Your task to perform on an android device: turn off priority inbox in the gmail app Image 0: 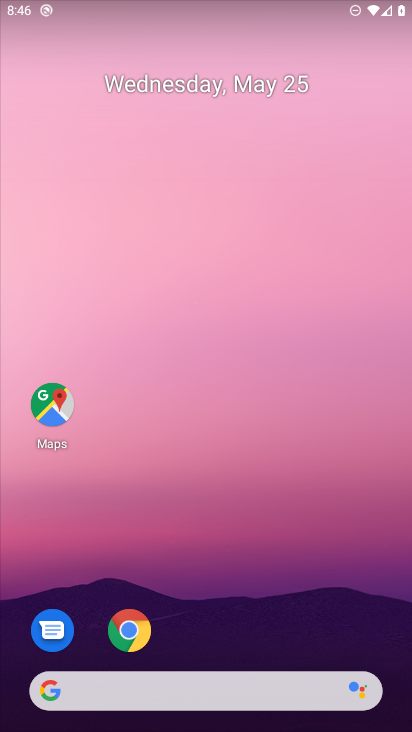
Step 0: drag from (218, 613) to (271, 415)
Your task to perform on an android device: turn off priority inbox in the gmail app Image 1: 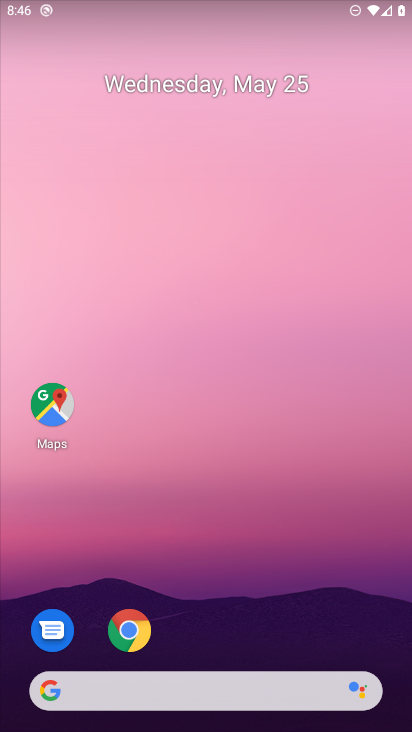
Step 1: drag from (159, 683) to (317, 232)
Your task to perform on an android device: turn off priority inbox in the gmail app Image 2: 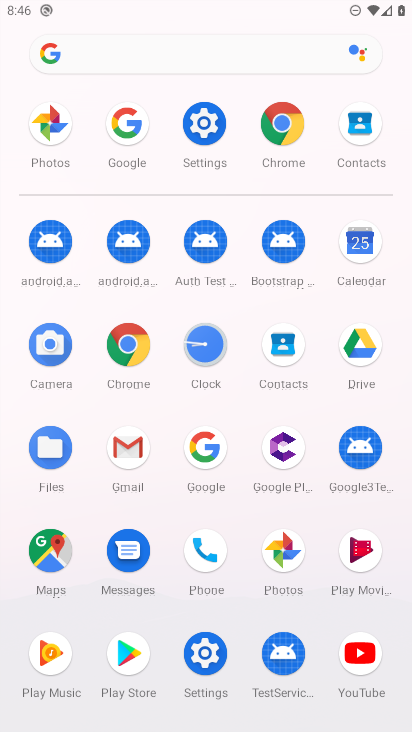
Step 2: click (205, 654)
Your task to perform on an android device: turn off priority inbox in the gmail app Image 3: 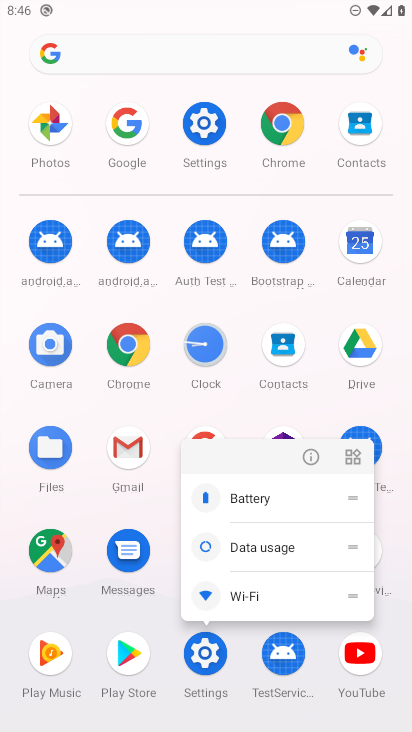
Step 3: click (128, 441)
Your task to perform on an android device: turn off priority inbox in the gmail app Image 4: 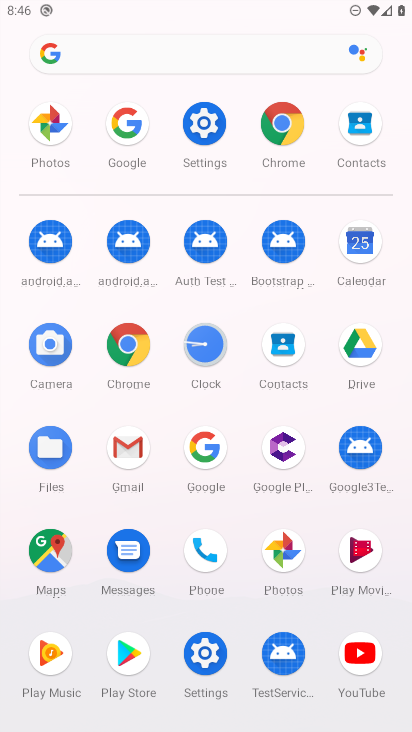
Step 4: click (130, 449)
Your task to perform on an android device: turn off priority inbox in the gmail app Image 5: 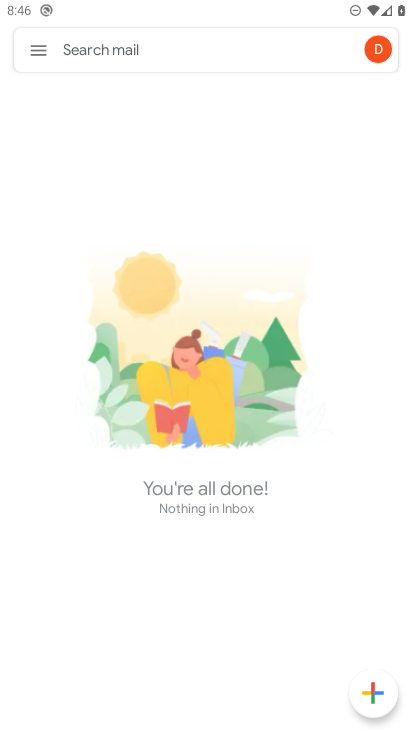
Step 5: click (26, 45)
Your task to perform on an android device: turn off priority inbox in the gmail app Image 6: 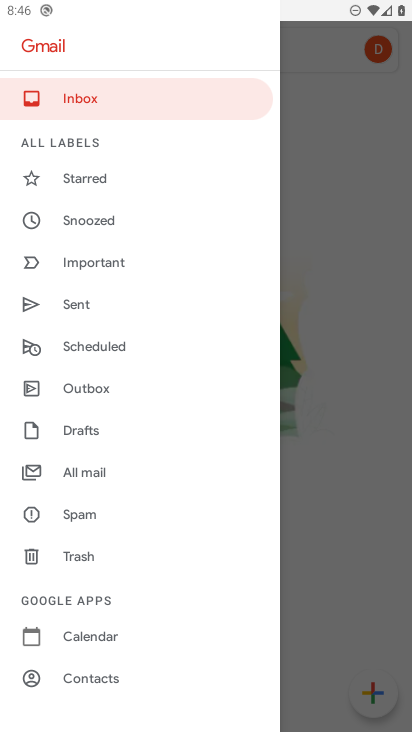
Step 6: drag from (122, 666) to (203, 364)
Your task to perform on an android device: turn off priority inbox in the gmail app Image 7: 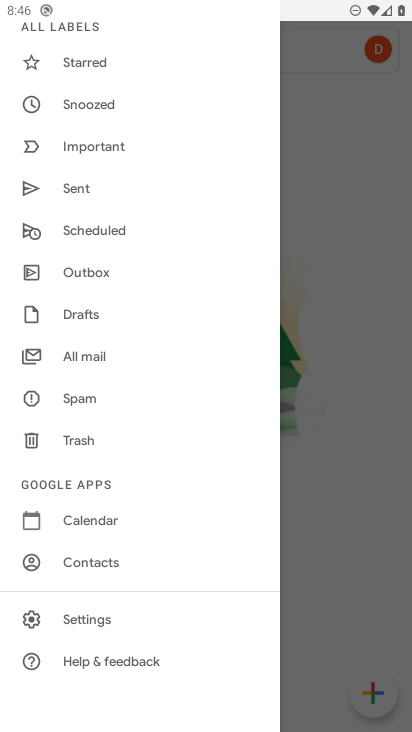
Step 7: click (77, 628)
Your task to perform on an android device: turn off priority inbox in the gmail app Image 8: 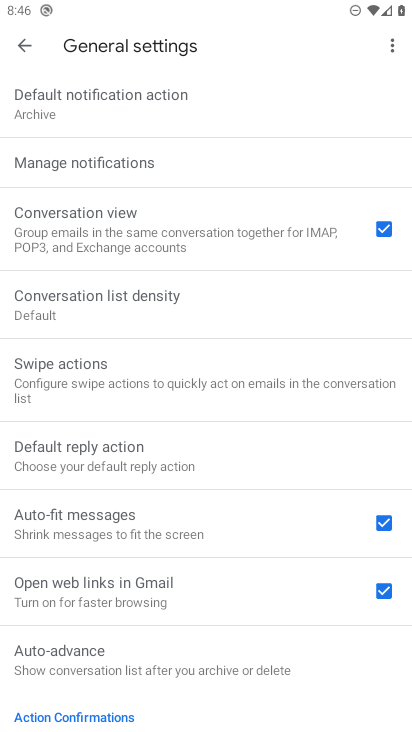
Step 8: click (22, 46)
Your task to perform on an android device: turn off priority inbox in the gmail app Image 9: 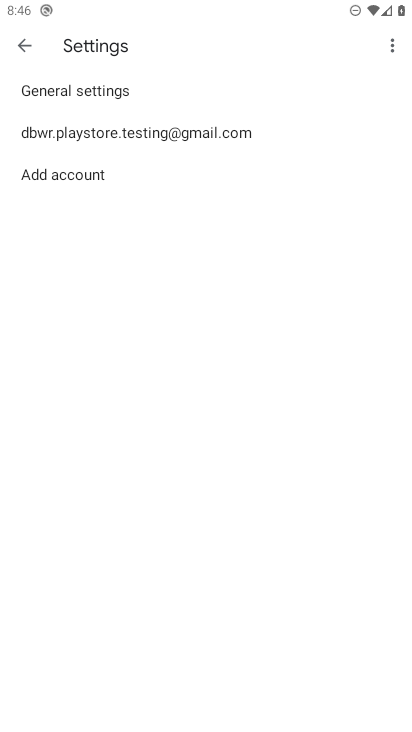
Step 9: click (144, 138)
Your task to perform on an android device: turn off priority inbox in the gmail app Image 10: 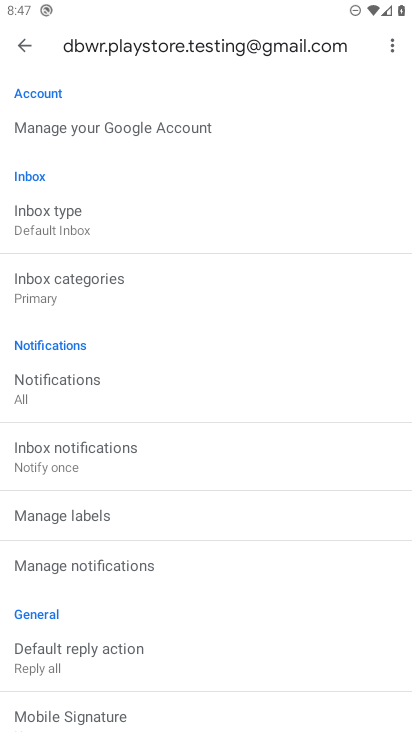
Step 10: click (53, 217)
Your task to perform on an android device: turn off priority inbox in the gmail app Image 11: 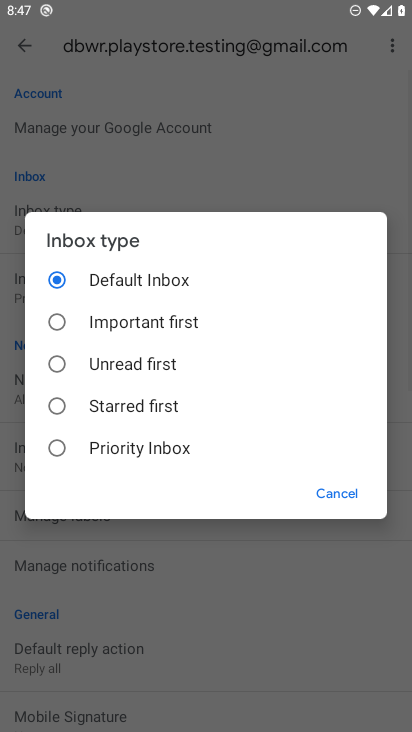
Step 11: click (104, 455)
Your task to perform on an android device: turn off priority inbox in the gmail app Image 12: 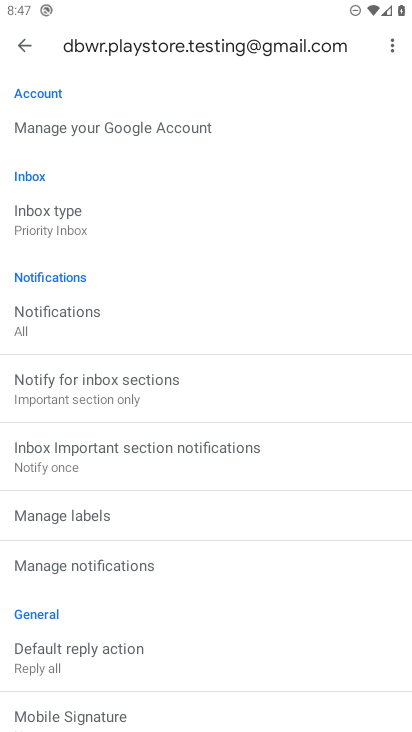
Step 12: task complete